Your task to perform on an android device: Open Google Maps and go to "Timeline" Image 0: 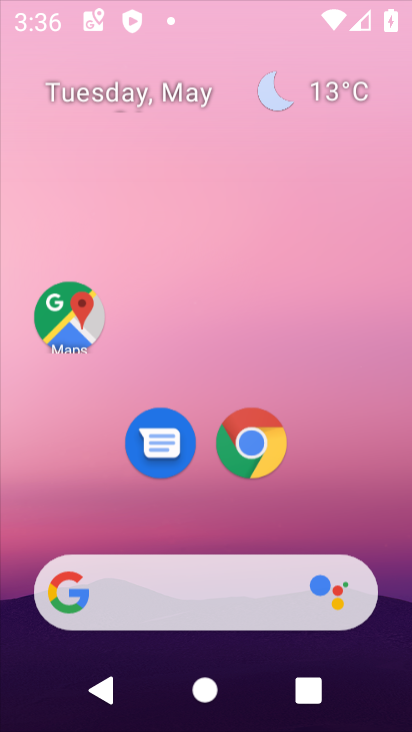
Step 0: press home button
Your task to perform on an android device: Open Google Maps and go to "Timeline" Image 1: 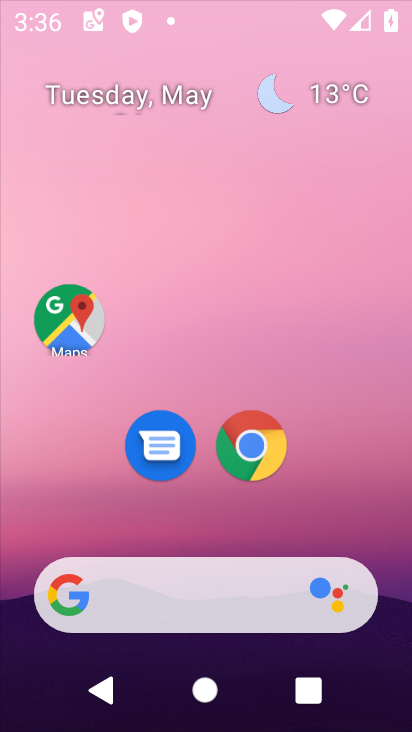
Step 1: click (328, 86)
Your task to perform on an android device: Open Google Maps and go to "Timeline" Image 2: 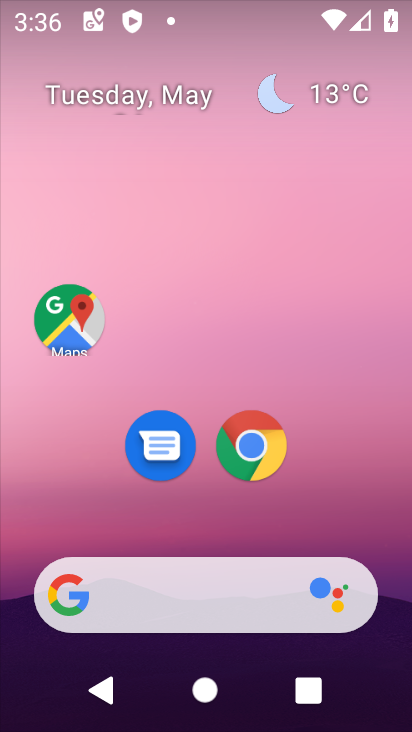
Step 2: click (65, 313)
Your task to perform on an android device: Open Google Maps and go to "Timeline" Image 3: 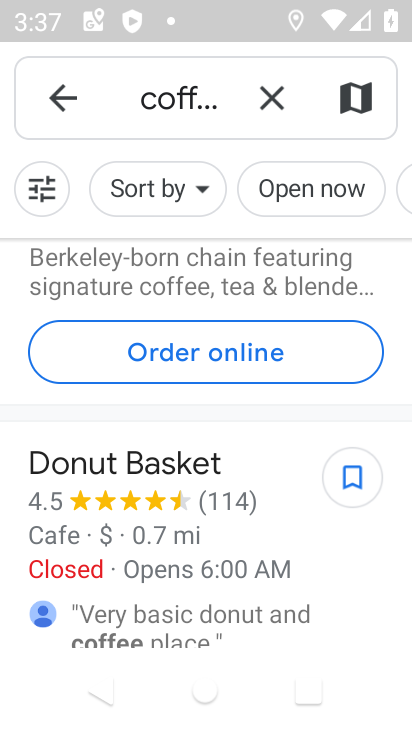
Step 3: click (272, 88)
Your task to perform on an android device: Open Google Maps and go to "Timeline" Image 4: 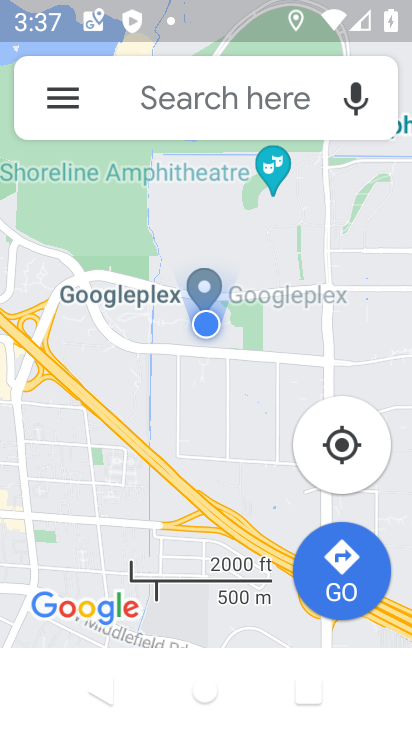
Step 4: click (65, 98)
Your task to perform on an android device: Open Google Maps and go to "Timeline" Image 5: 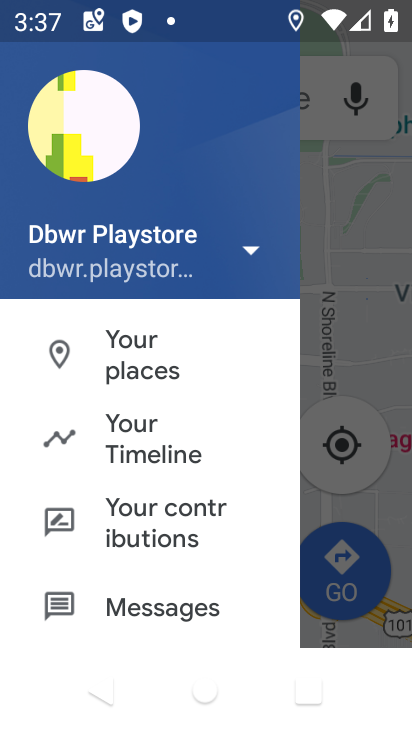
Step 5: click (136, 432)
Your task to perform on an android device: Open Google Maps and go to "Timeline" Image 6: 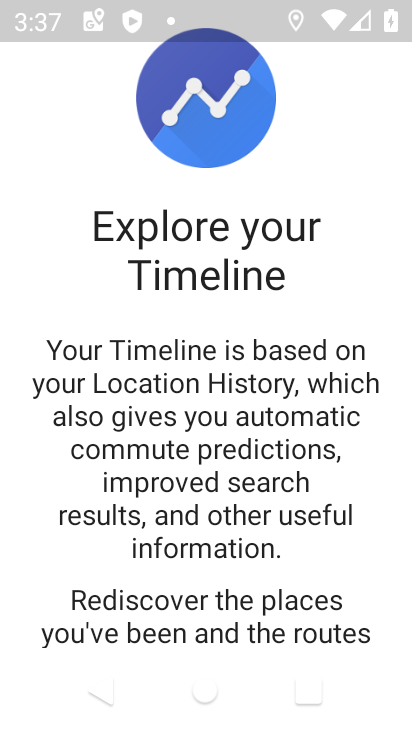
Step 6: drag from (236, 574) to (217, 242)
Your task to perform on an android device: Open Google Maps and go to "Timeline" Image 7: 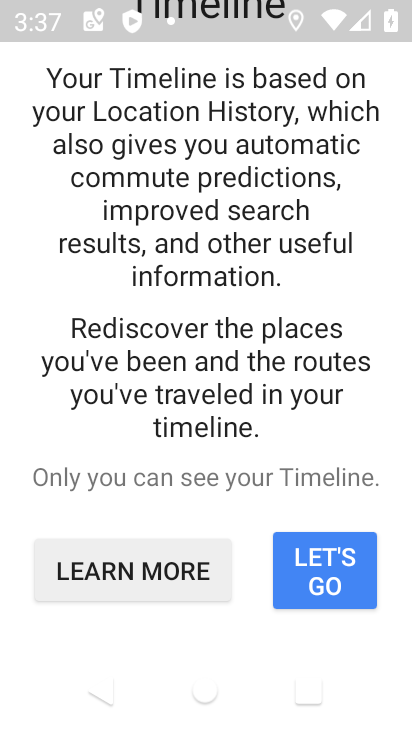
Step 7: click (320, 556)
Your task to perform on an android device: Open Google Maps and go to "Timeline" Image 8: 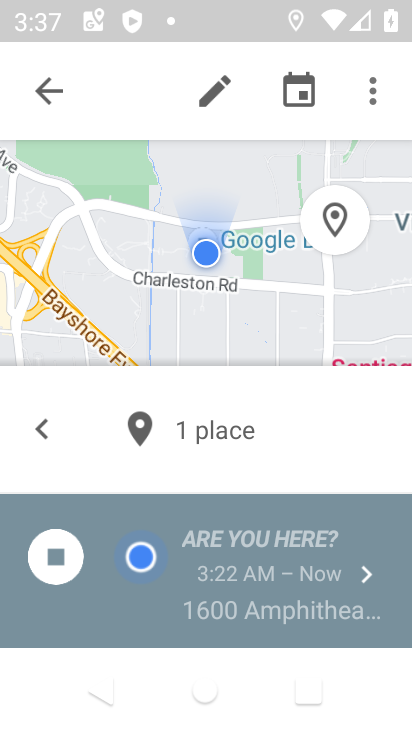
Step 8: task complete